Your task to perform on an android device: Go to sound settings Image 0: 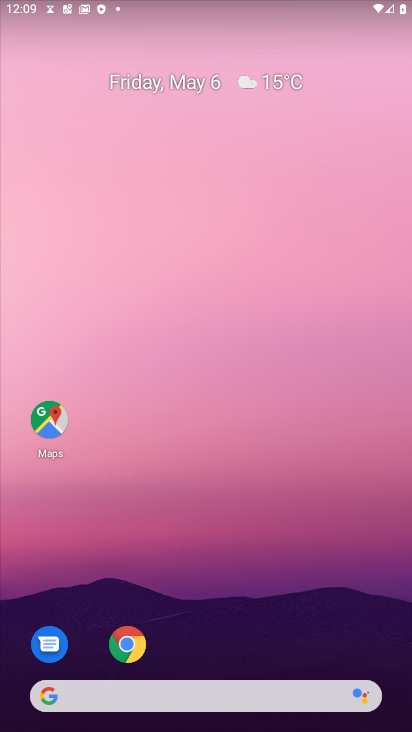
Step 0: click (266, 35)
Your task to perform on an android device: Go to sound settings Image 1: 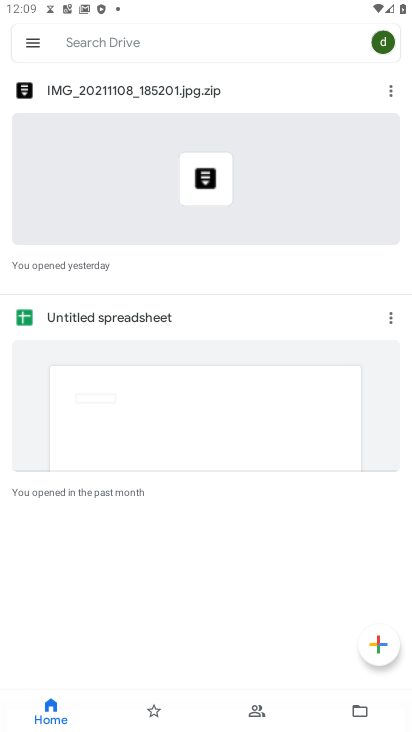
Step 1: press back button
Your task to perform on an android device: Go to sound settings Image 2: 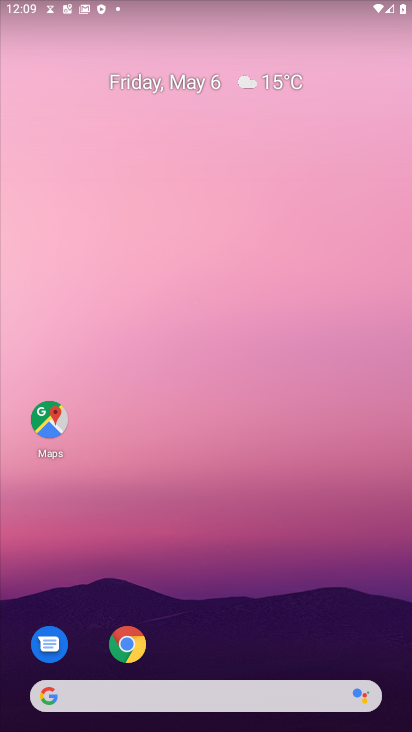
Step 2: drag from (260, 622) to (231, 2)
Your task to perform on an android device: Go to sound settings Image 3: 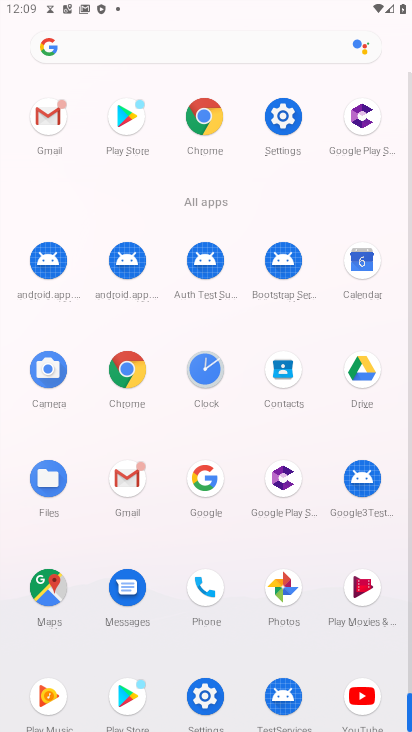
Step 3: drag from (1, 608) to (8, 368)
Your task to perform on an android device: Go to sound settings Image 4: 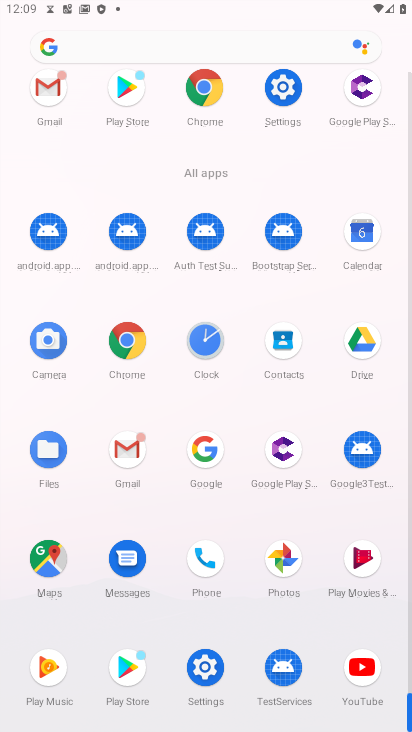
Step 4: click (279, 86)
Your task to perform on an android device: Go to sound settings Image 5: 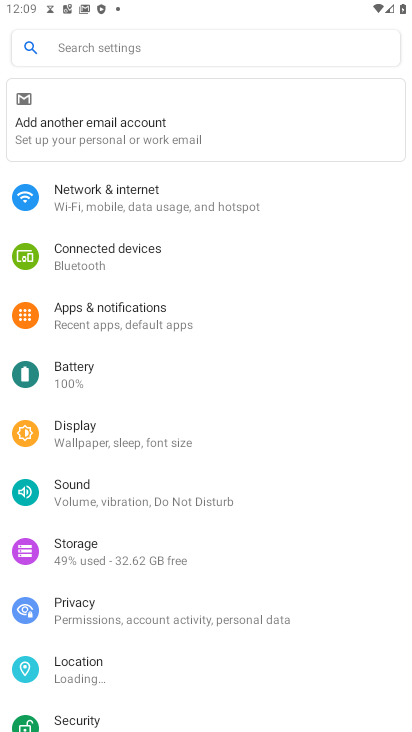
Step 5: drag from (347, 610) to (385, 314)
Your task to perform on an android device: Go to sound settings Image 6: 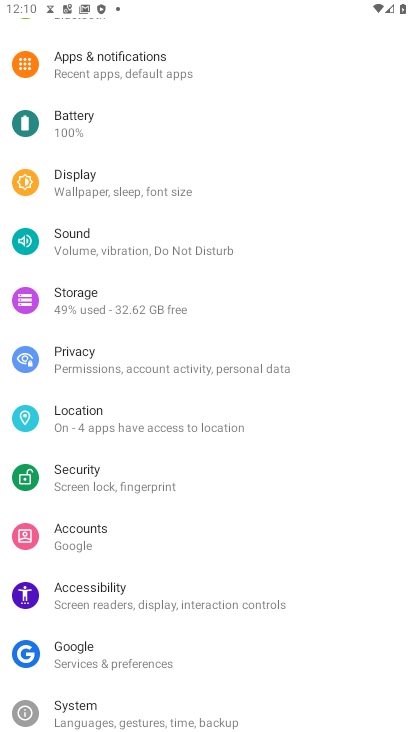
Step 6: click (124, 245)
Your task to perform on an android device: Go to sound settings Image 7: 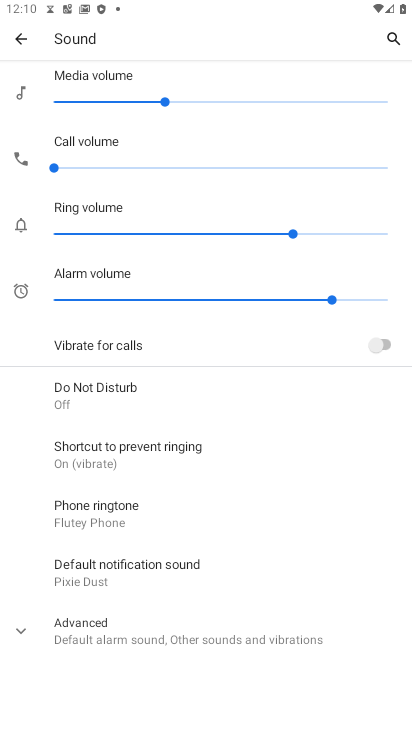
Step 7: drag from (274, 565) to (299, 114)
Your task to perform on an android device: Go to sound settings Image 8: 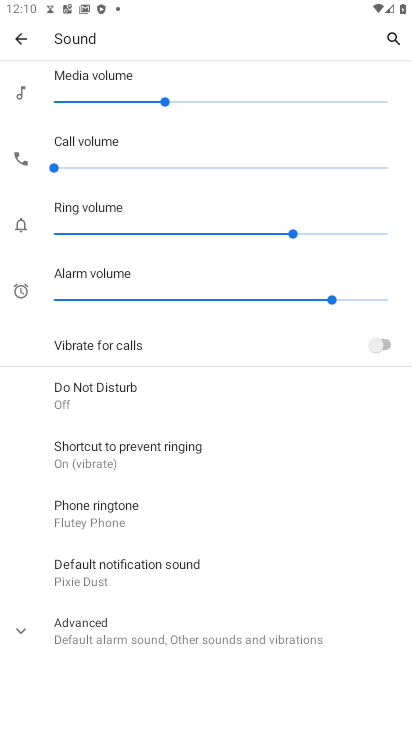
Step 8: click (33, 622)
Your task to perform on an android device: Go to sound settings Image 9: 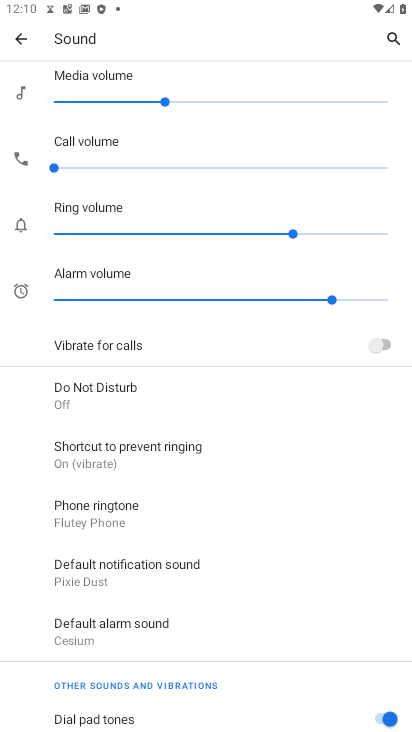
Step 9: task complete